Your task to perform on an android device: set default search engine in the chrome app Image 0: 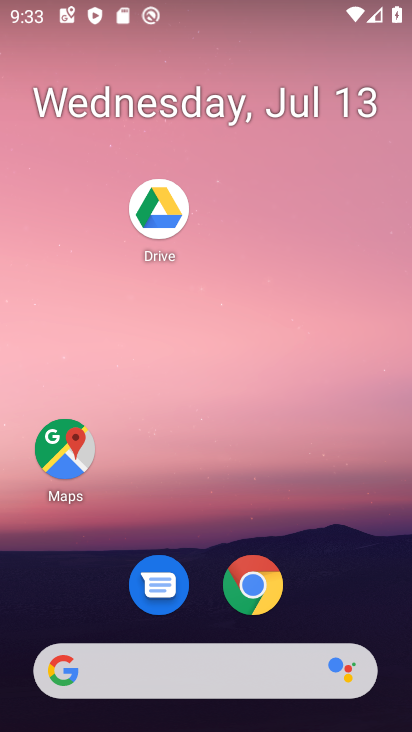
Step 0: click (252, 579)
Your task to perform on an android device: set default search engine in the chrome app Image 1: 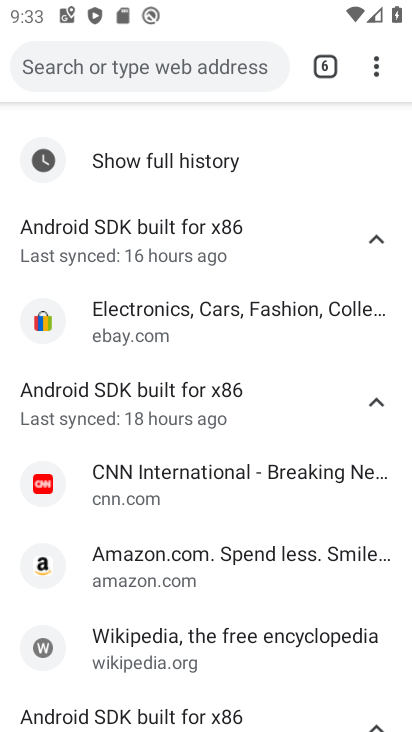
Step 1: drag from (373, 63) to (212, 570)
Your task to perform on an android device: set default search engine in the chrome app Image 2: 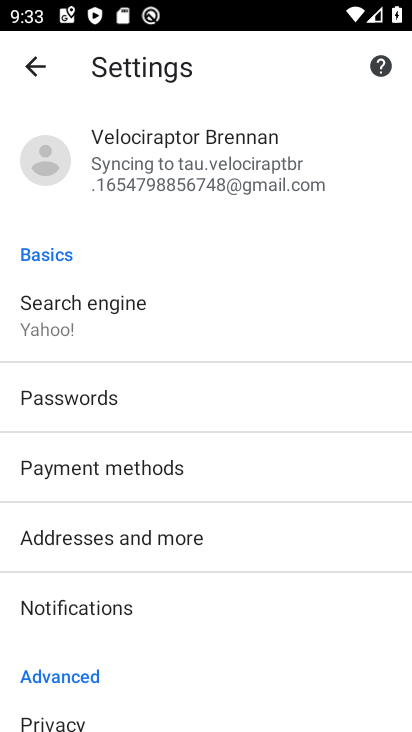
Step 2: drag from (170, 656) to (241, 266)
Your task to perform on an android device: set default search engine in the chrome app Image 3: 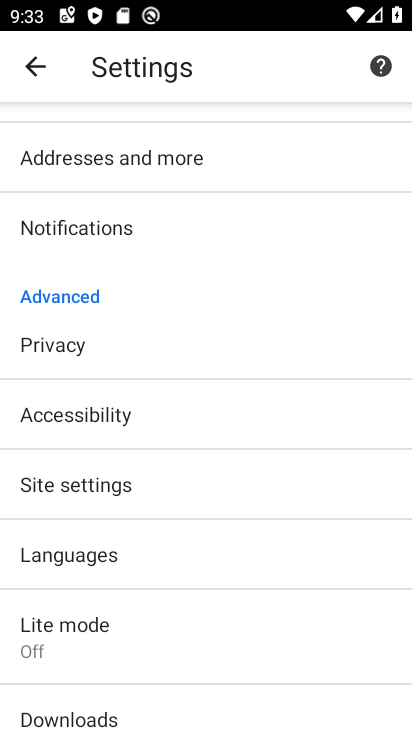
Step 3: drag from (175, 222) to (212, 593)
Your task to perform on an android device: set default search engine in the chrome app Image 4: 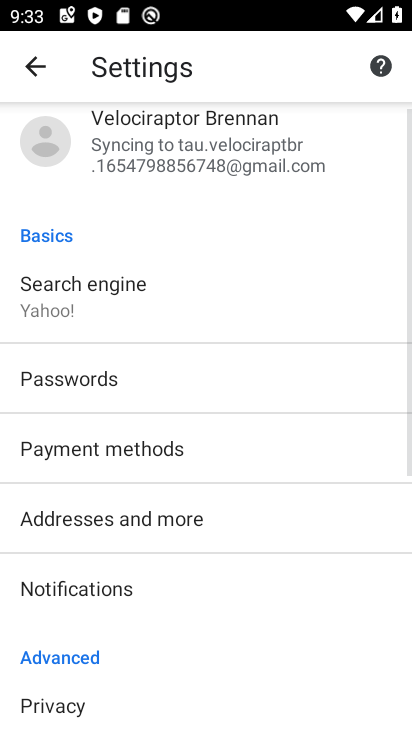
Step 4: click (102, 305)
Your task to perform on an android device: set default search engine in the chrome app Image 5: 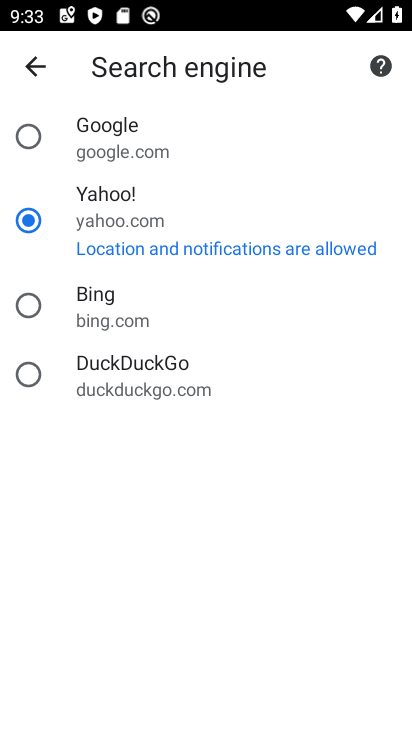
Step 5: click (25, 138)
Your task to perform on an android device: set default search engine in the chrome app Image 6: 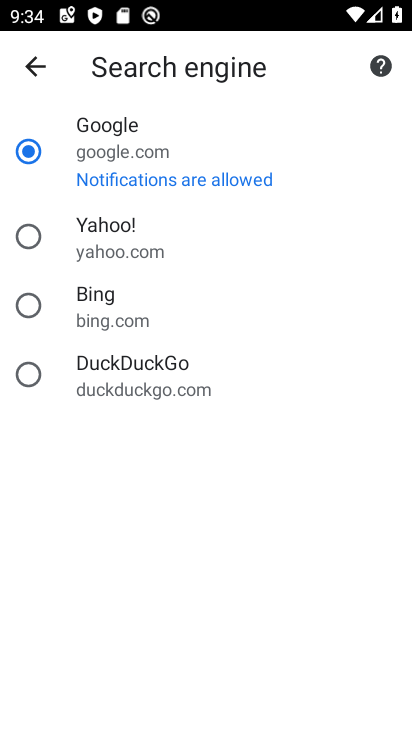
Step 6: task complete